Your task to perform on an android device: Open calendar and show me the second week of next month Image 0: 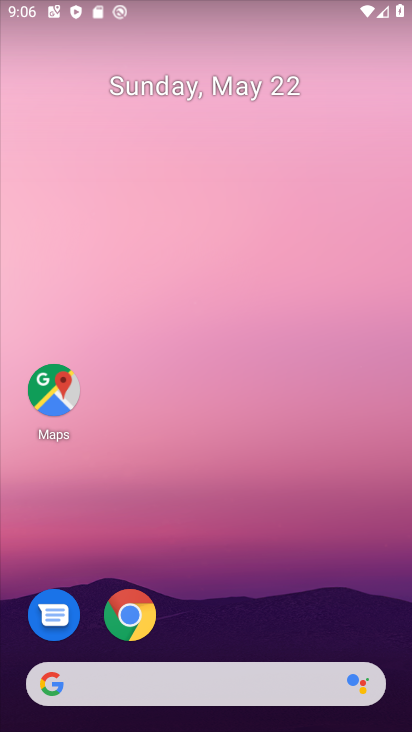
Step 0: drag from (233, 594) to (277, 267)
Your task to perform on an android device: Open calendar and show me the second week of next month Image 1: 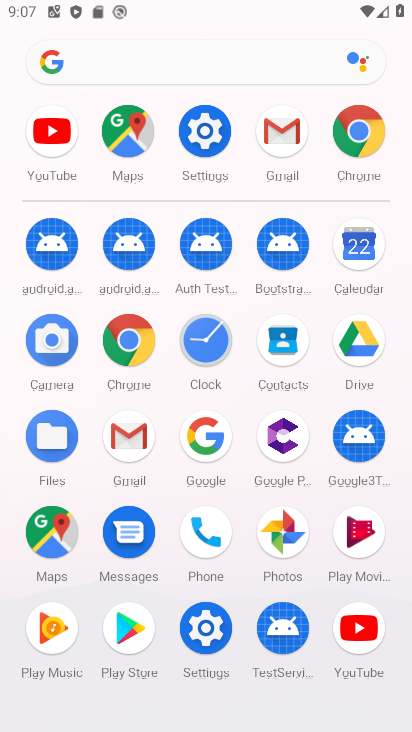
Step 1: click (345, 226)
Your task to perform on an android device: Open calendar and show me the second week of next month Image 2: 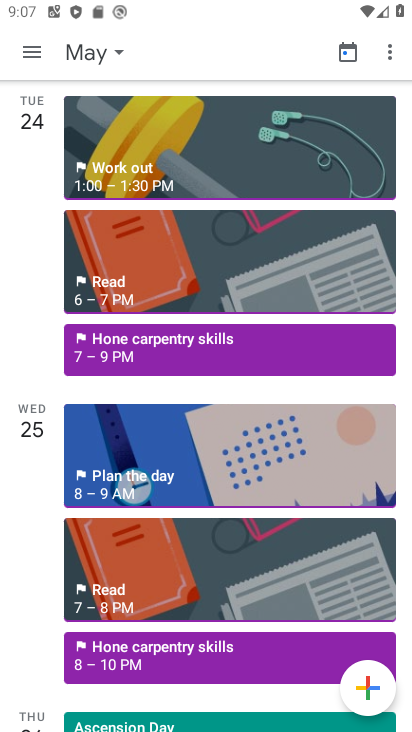
Step 2: click (30, 47)
Your task to perform on an android device: Open calendar and show me the second week of next month Image 3: 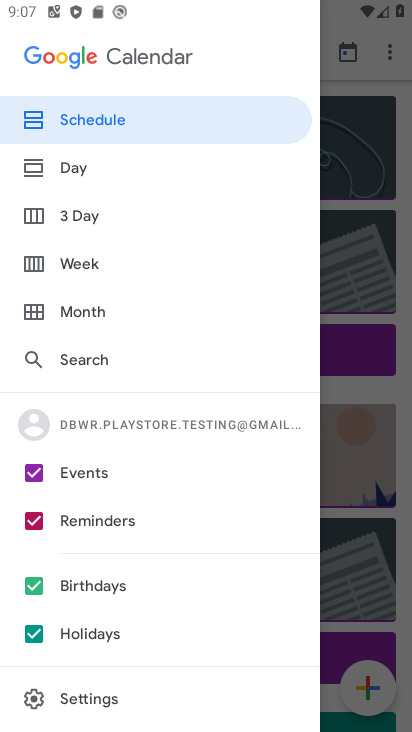
Step 3: click (80, 317)
Your task to perform on an android device: Open calendar and show me the second week of next month Image 4: 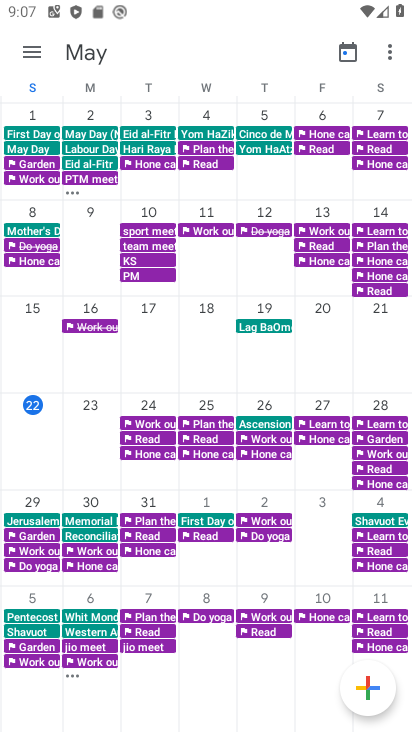
Step 4: task complete